Your task to perform on an android device: Open the phone app and click the voicemail tab. Image 0: 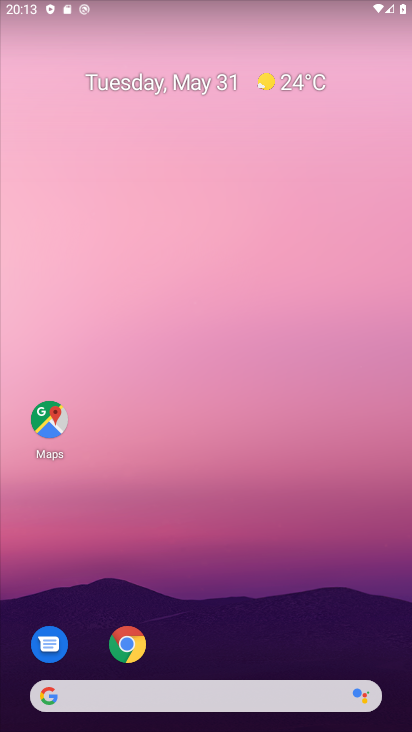
Step 0: drag from (293, 617) to (302, 89)
Your task to perform on an android device: Open the phone app and click the voicemail tab. Image 1: 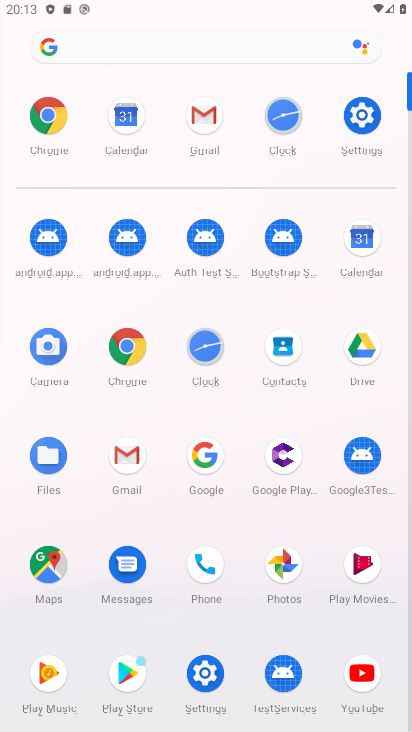
Step 1: click (218, 580)
Your task to perform on an android device: Open the phone app and click the voicemail tab. Image 2: 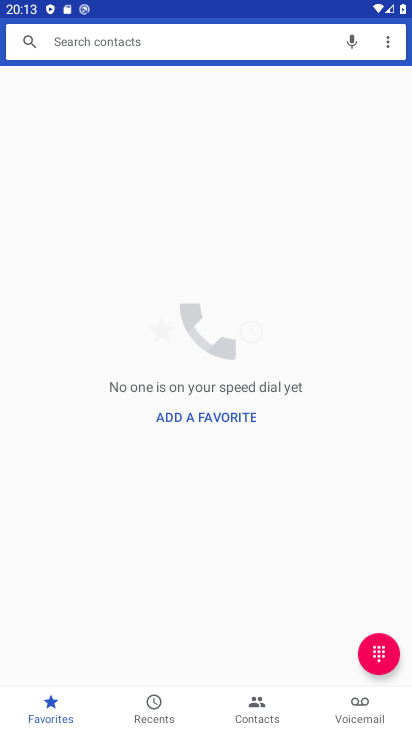
Step 2: click (351, 709)
Your task to perform on an android device: Open the phone app and click the voicemail tab. Image 3: 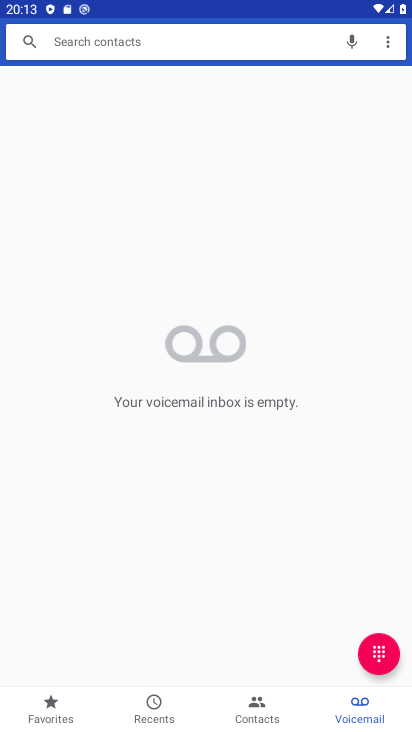
Step 3: task complete